Your task to perform on an android device: turn on sleep mode Image 0: 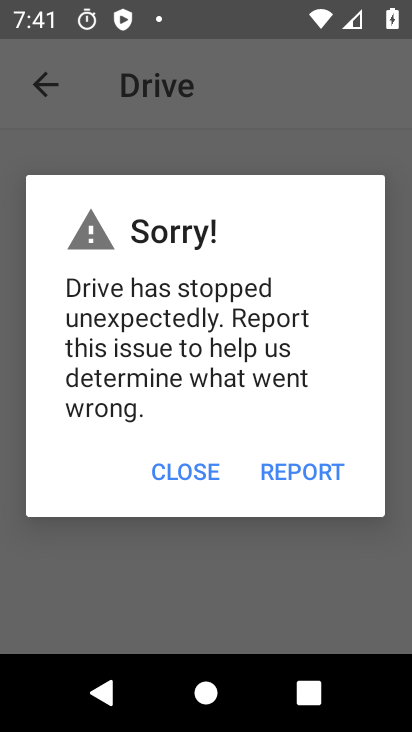
Step 0: press home button
Your task to perform on an android device: turn on sleep mode Image 1: 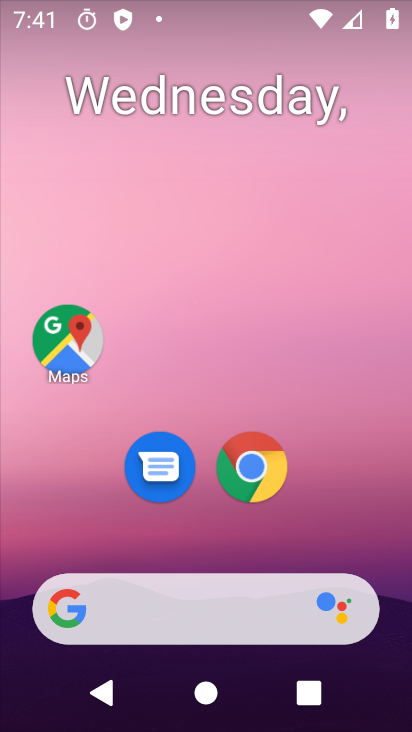
Step 1: drag from (372, 504) to (377, 170)
Your task to perform on an android device: turn on sleep mode Image 2: 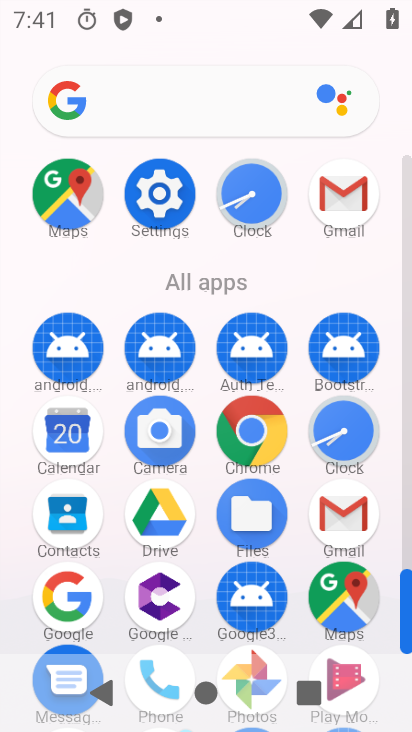
Step 2: click (165, 205)
Your task to perform on an android device: turn on sleep mode Image 3: 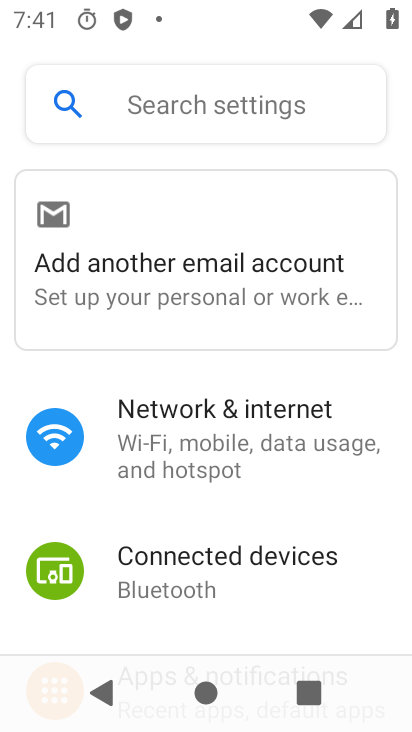
Step 3: drag from (279, 461) to (282, 359)
Your task to perform on an android device: turn on sleep mode Image 4: 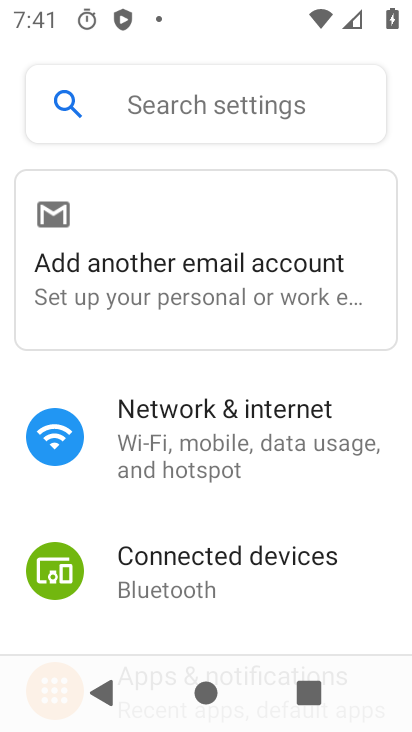
Step 4: drag from (337, 536) to (351, 264)
Your task to perform on an android device: turn on sleep mode Image 5: 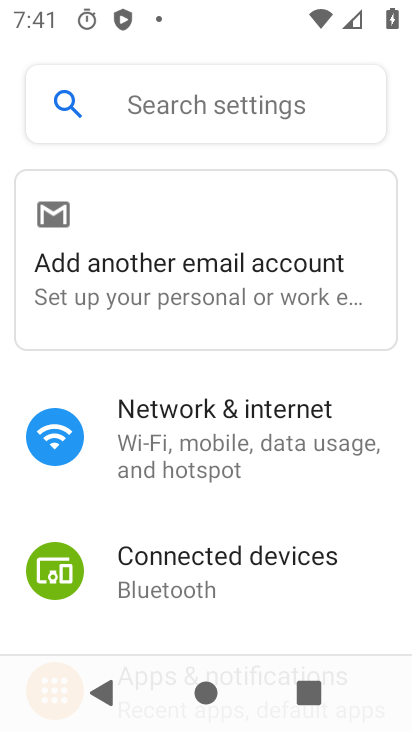
Step 5: drag from (362, 629) to (363, 253)
Your task to perform on an android device: turn on sleep mode Image 6: 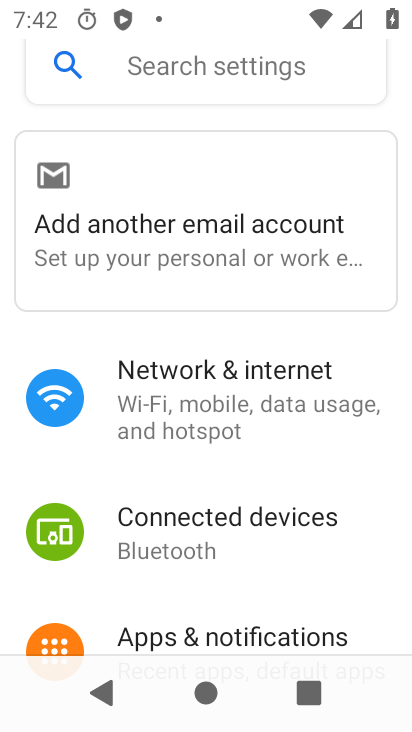
Step 6: drag from (396, 385) to (397, 92)
Your task to perform on an android device: turn on sleep mode Image 7: 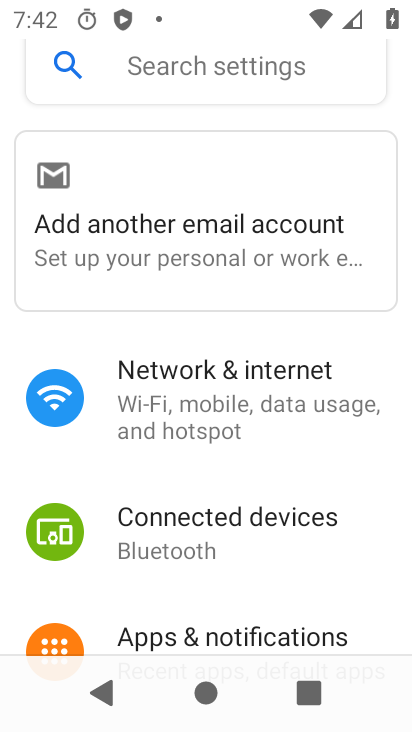
Step 7: drag from (370, 632) to (404, 275)
Your task to perform on an android device: turn on sleep mode Image 8: 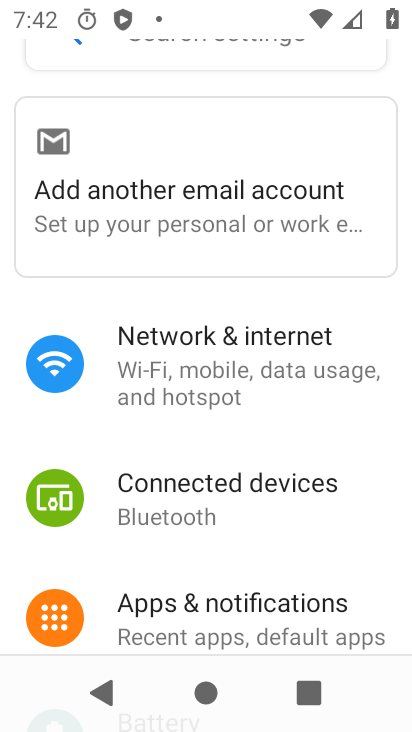
Step 8: drag from (344, 353) to (331, 169)
Your task to perform on an android device: turn on sleep mode Image 9: 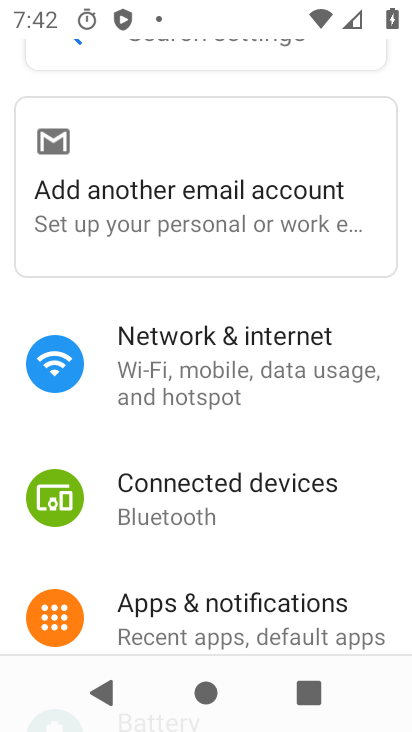
Step 9: drag from (388, 580) to (379, 246)
Your task to perform on an android device: turn on sleep mode Image 10: 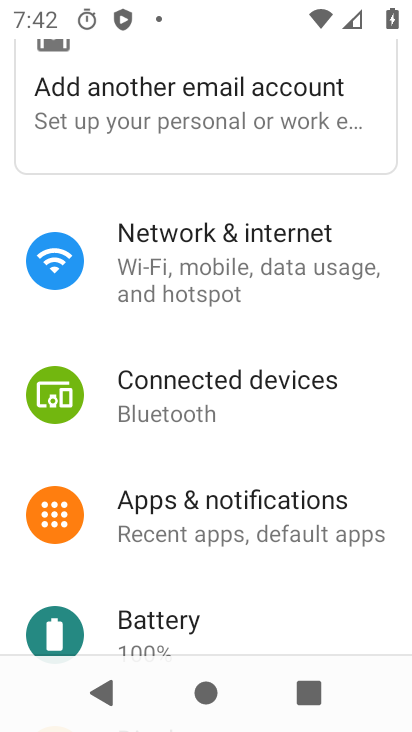
Step 10: drag from (363, 638) to (360, 225)
Your task to perform on an android device: turn on sleep mode Image 11: 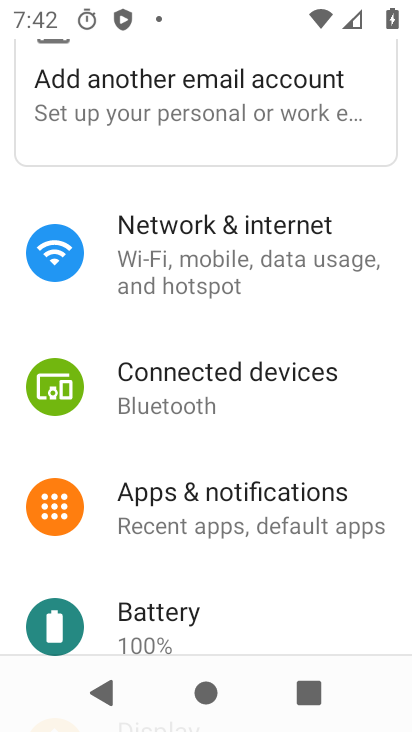
Step 11: drag from (330, 522) to (316, 236)
Your task to perform on an android device: turn on sleep mode Image 12: 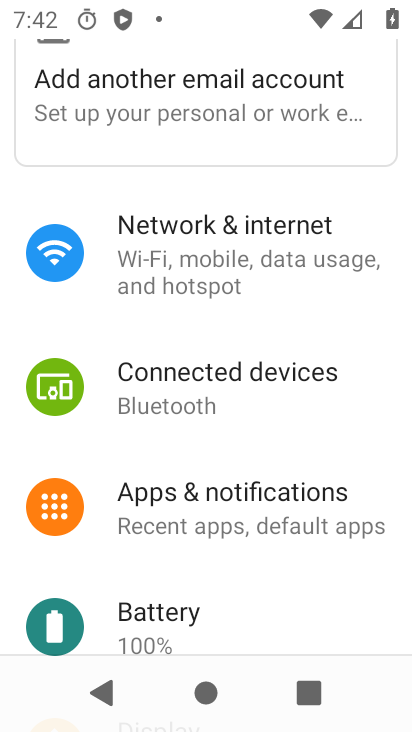
Step 12: drag from (352, 569) to (362, 101)
Your task to perform on an android device: turn on sleep mode Image 13: 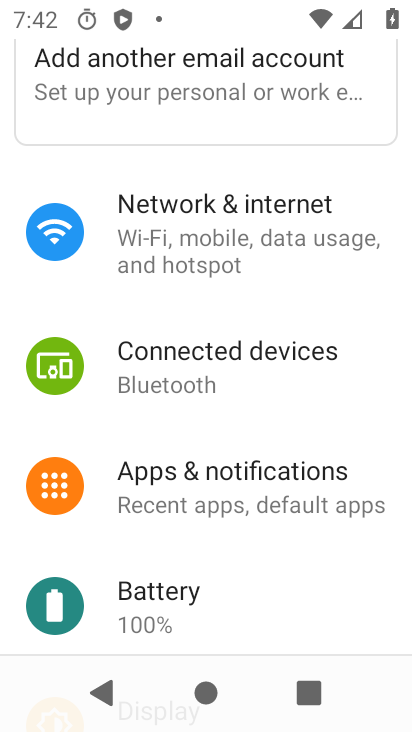
Step 13: drag from (324, 592) to (333, 175)
Your task to perform on an android device: turn on sleep mode Image 14: 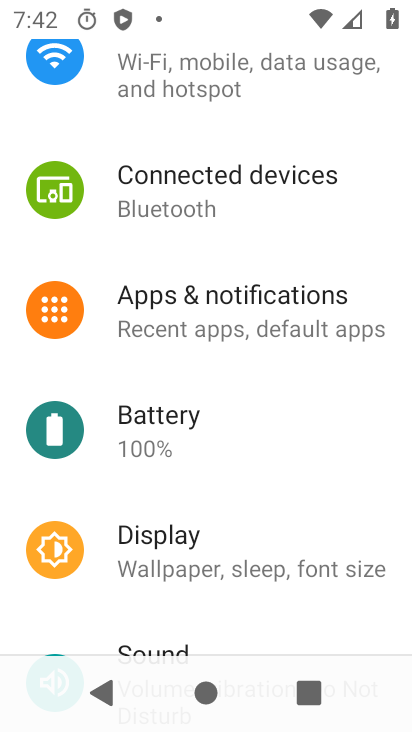
Step 14: drag from (356, 563) to (355, 243)
Your task to perform on an android device: turn on sleep mode Image 15: 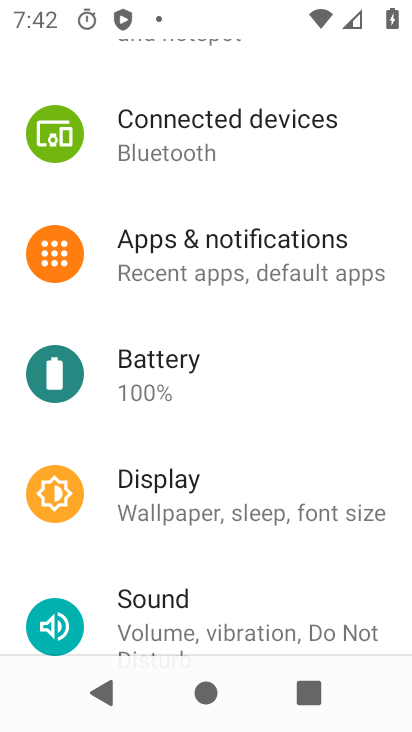
Step 15: drag from (325, 591) to (303, 240)
Your task to perform on an android device: turn on sleep mode Image 16: 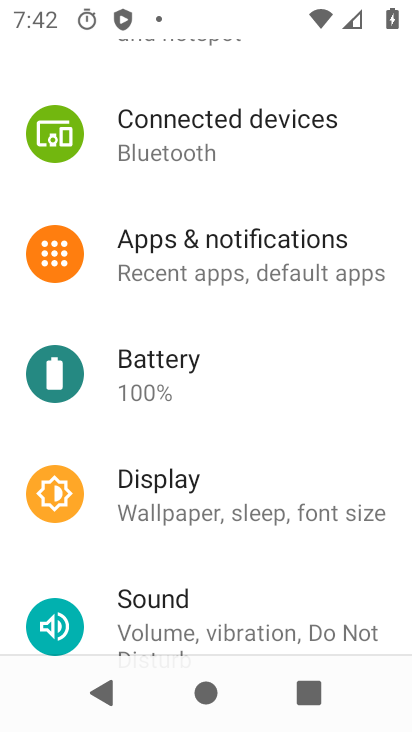
Step 16: drag from (342, 504) to (319, 305)
Your task to perform on an android device: turn on sleep mode Image 17: 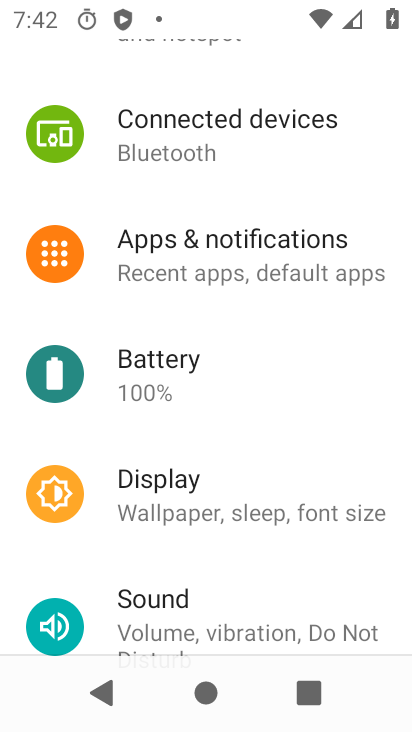
Step 17: drag from (331, 551) to (302, 282)
Your task to perform on an android device: turn on sleep mode Image 18: 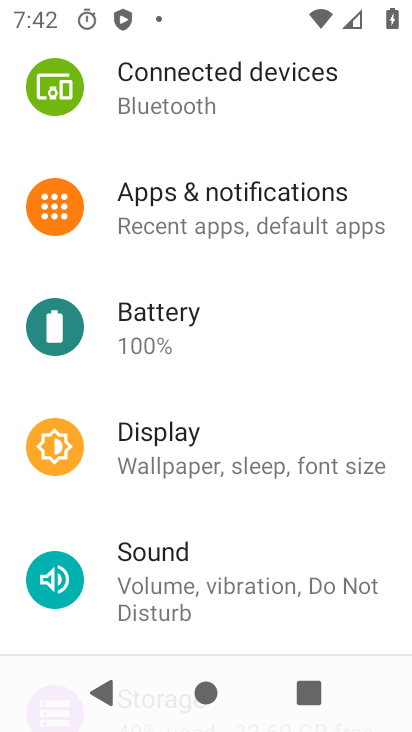
Step 18: click (161, 446)
Your task to perform on an android device: turn on sleep mode Image 19: 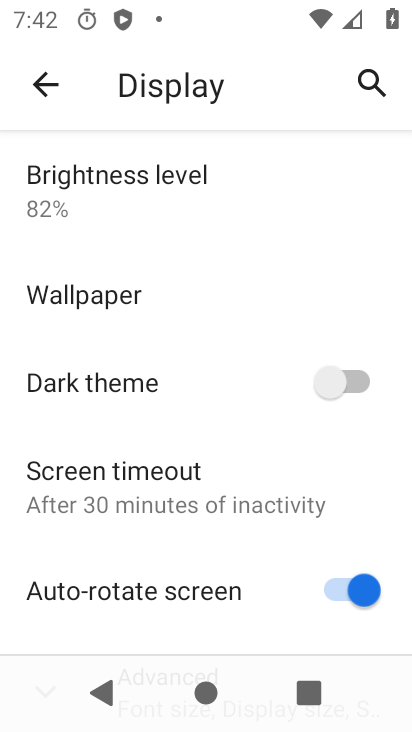
Step 19: drag from (277, 403) to (263, 246)
Your task to perform on an android device: turn on sleep mode Image 20: 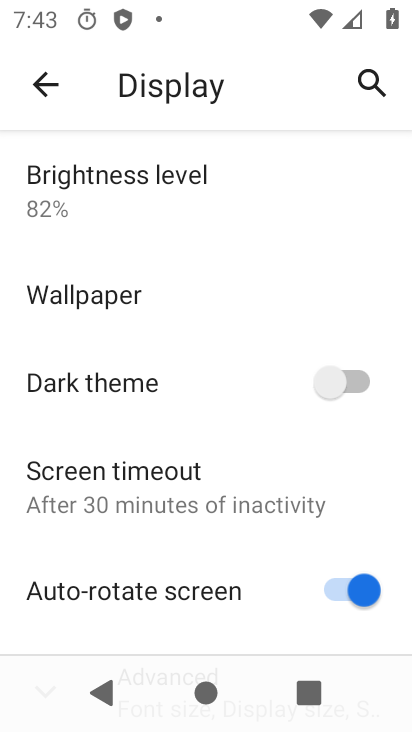
Step 20: drag from (260, 602) to (232, 196)
Your task to perform on an android device: turn on sleep mode Image 21: 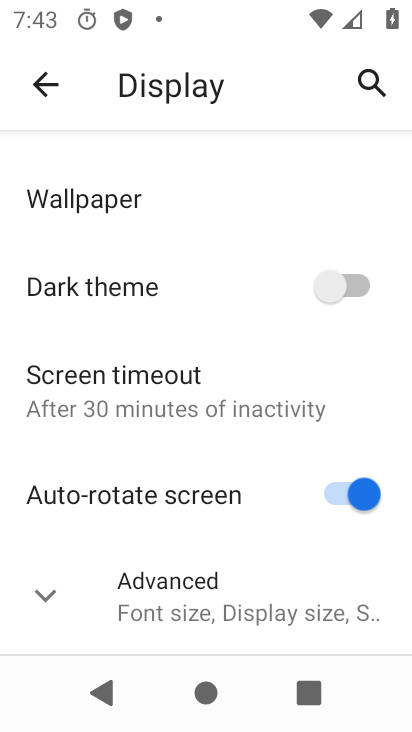
Step 21: click (82, 382)
Your task to perform on an android device: turn on sleep mode Image 22: 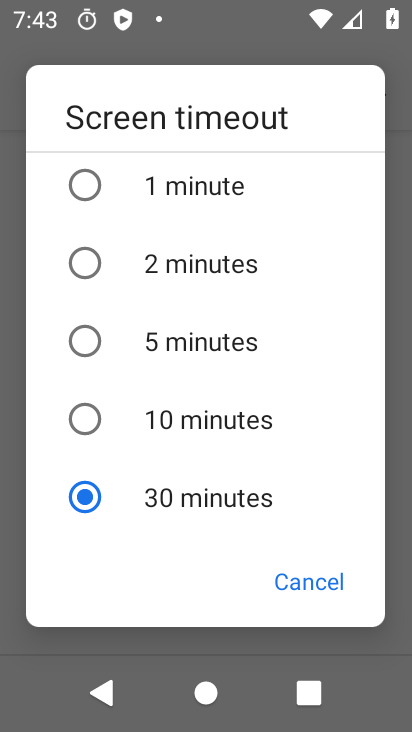
Step 22: task complete